Your task to perform on an android device: Open settings on Google Maps Image 0: 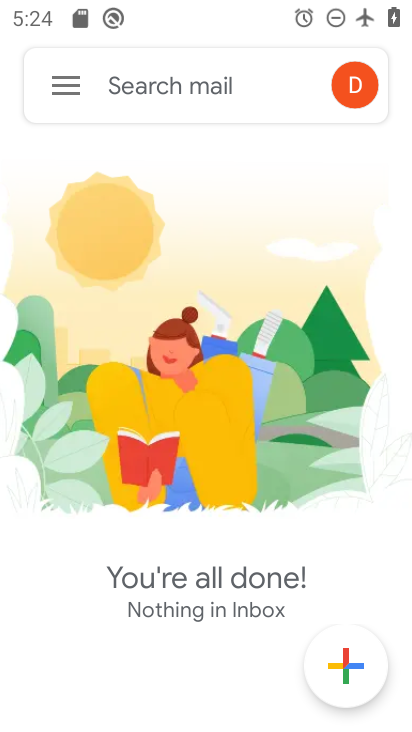
Step 0: press home button
Your task to perform on an android device: Open settings on Google Maps Image 1: 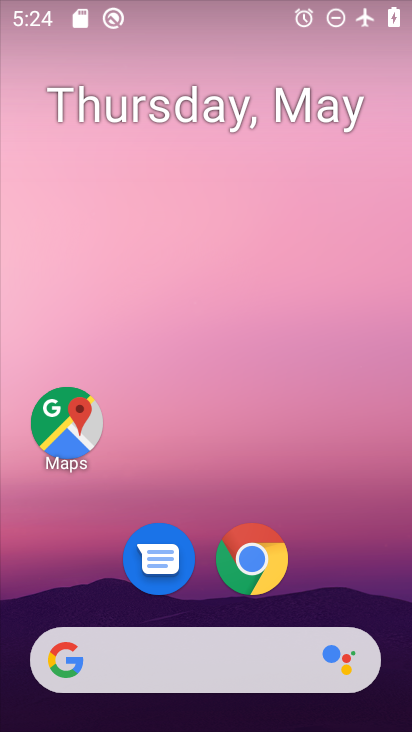
Step 1: click (61, 419)
Your task to perform on an android device: Open settings on Google Maps Image 2: 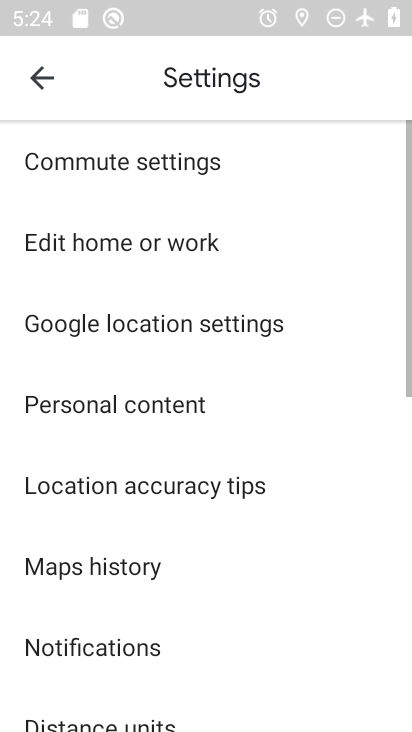
Step 2: task complete